Your task to perform on an android device: Open Wikipedia Image 0: 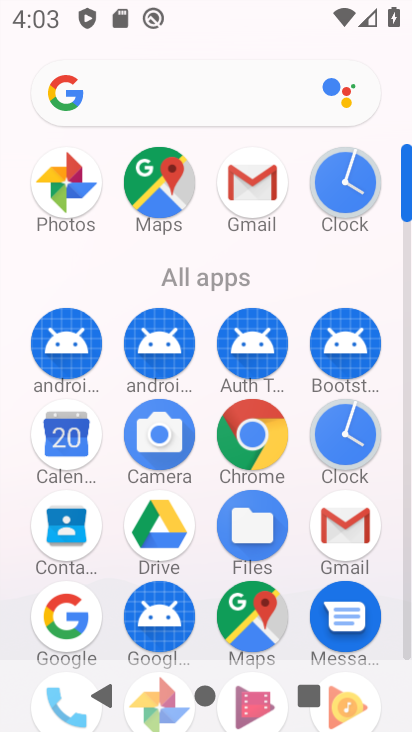
Step 0: click (267, 434)
Your task to perform on an android device: Open Wikipedia Image 1: 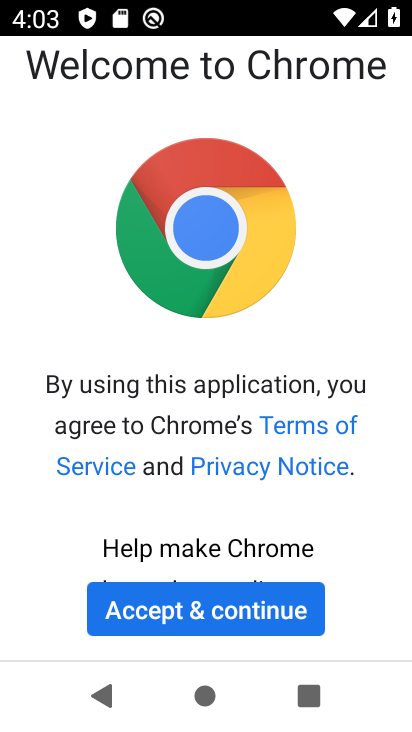
Step 1: click (252, 603)
Your task to perform on an android device: Open Wikipedia Image 2: 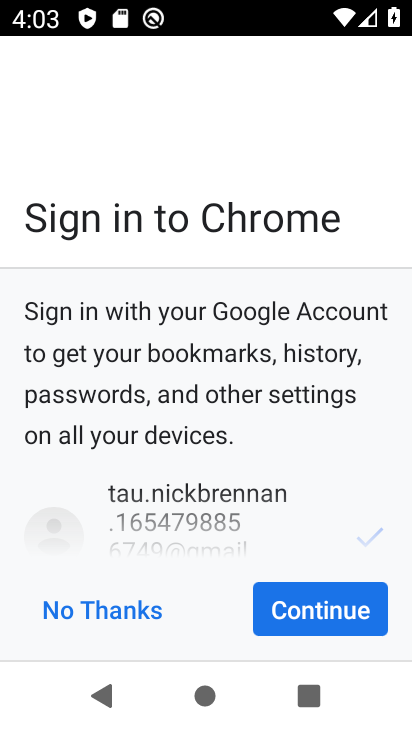
Step 2: click (291, 608)
Your task to perform on an android device: Open Wikipedia Image 3: 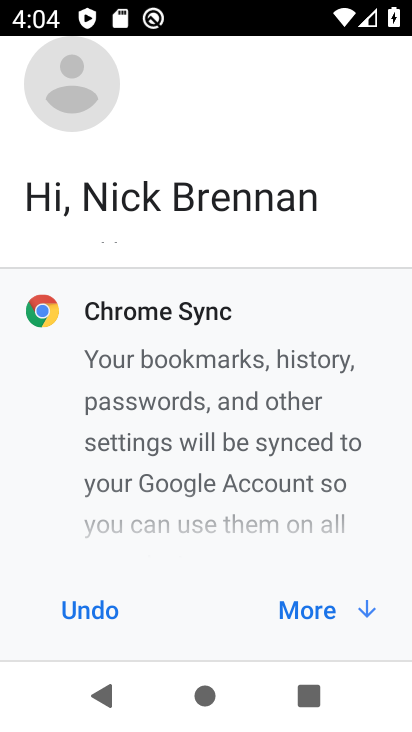
Step 3: click (303, 610)
Your task to perform on an android device: Open Wikipedia Image 4: 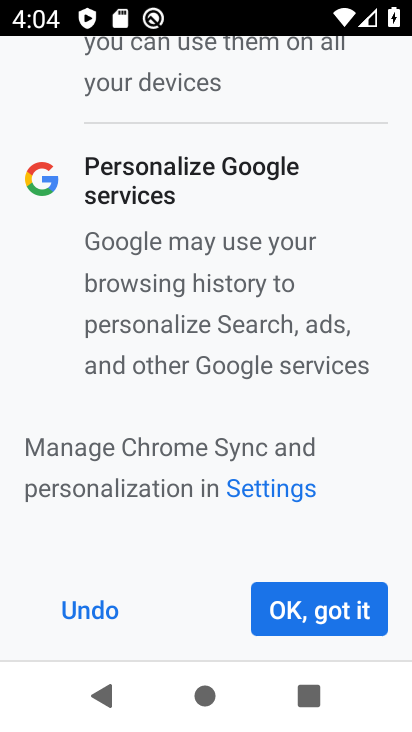
Step 4: click (359, 607)
Your task to perform on an android device: Open Wikipedia Image 5: 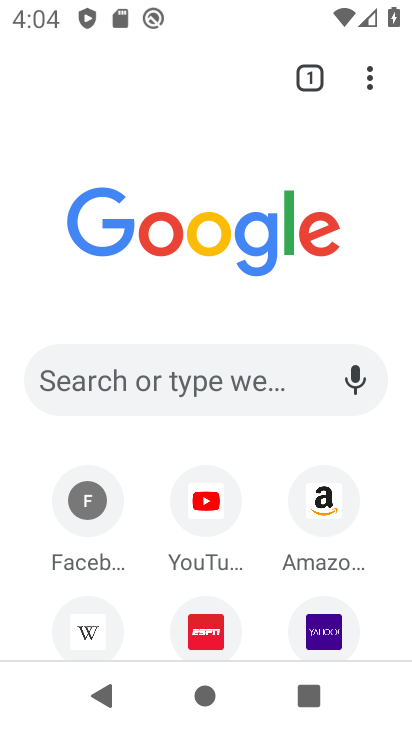
Step 5: drag from (193, 604) to (248, 285)
Your task to perform on an android device: Open Wikipedia Image 6: 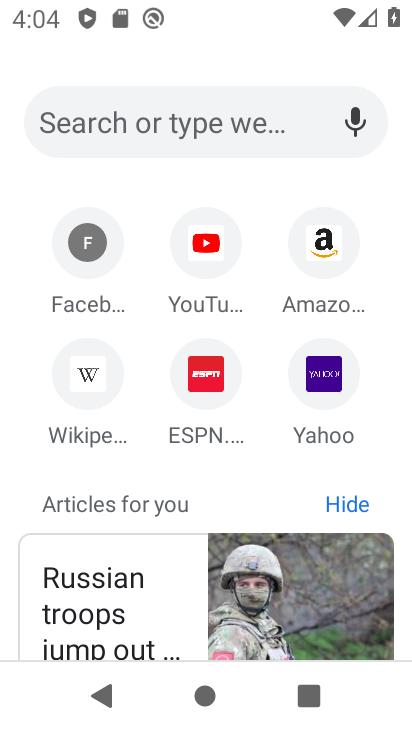
Step 6: click (84, 373)
Your task to perform on an android device: Open Wikipedia Image 7: 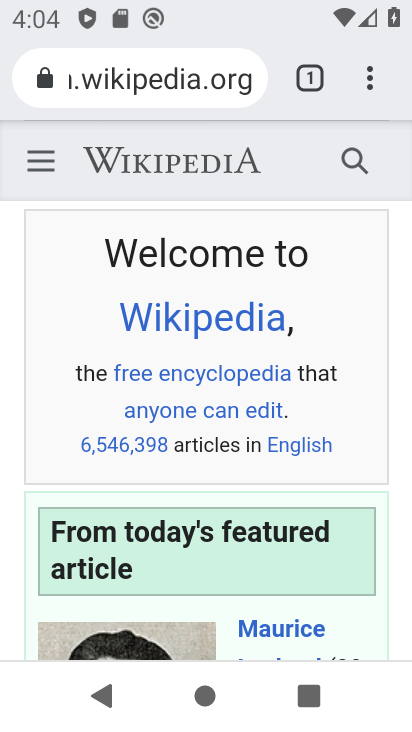
Step 7: task complete